Your task to perform on an android device: turn smart compose on in the gmail app Image 0: 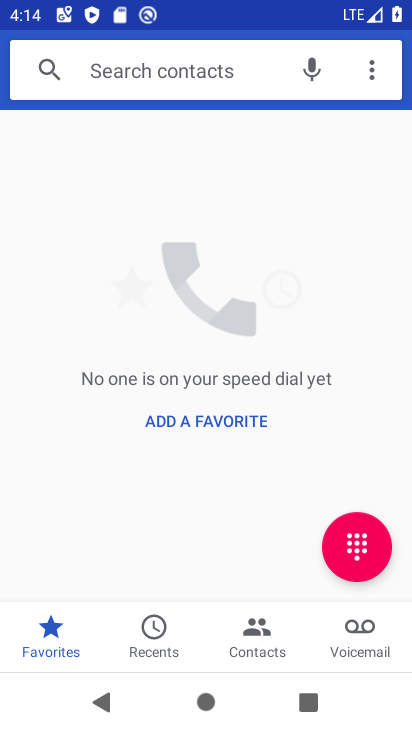
Step 0: press home button
Your task to perform on an android device: turn smart compose on in the gmail app Image 1: 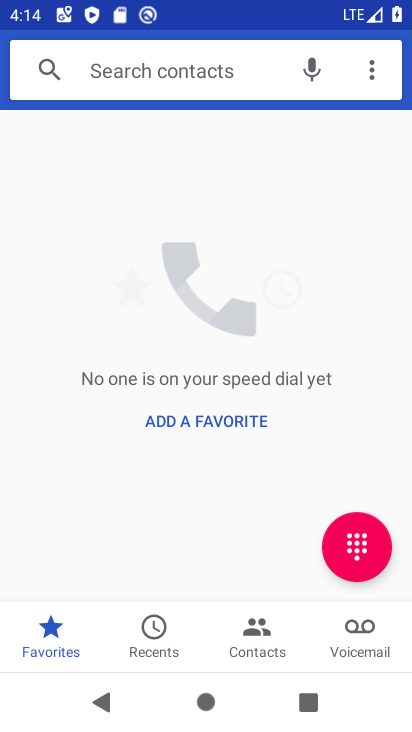
Step 1: press home button
Your task to perform on an android device: turn smart compose on in the gmail app Image 2: 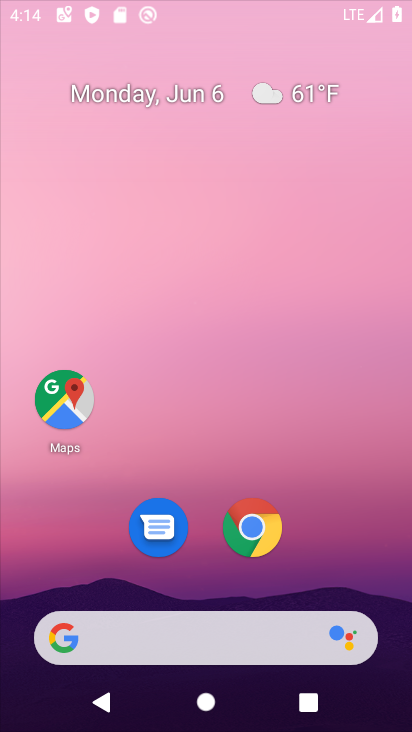
Step 2: press home button
Your task to perform on an android device: turn smart compose on in the gmail app Image 3: 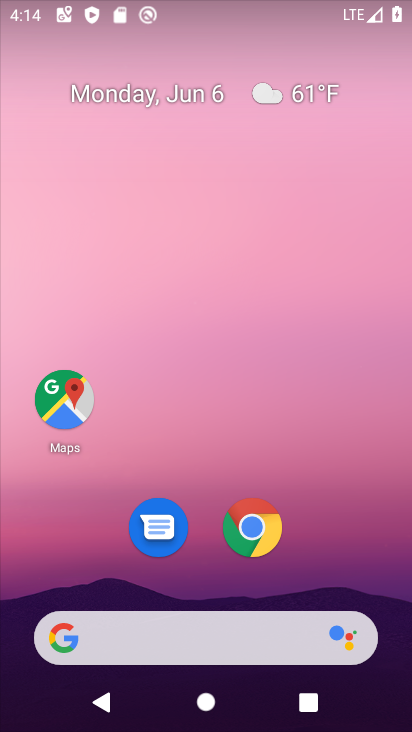
Step 3: drag from (328, 546) to (339, 151)
Your task to perform on an android device: turn smart compose on in the gmail app Image 4: 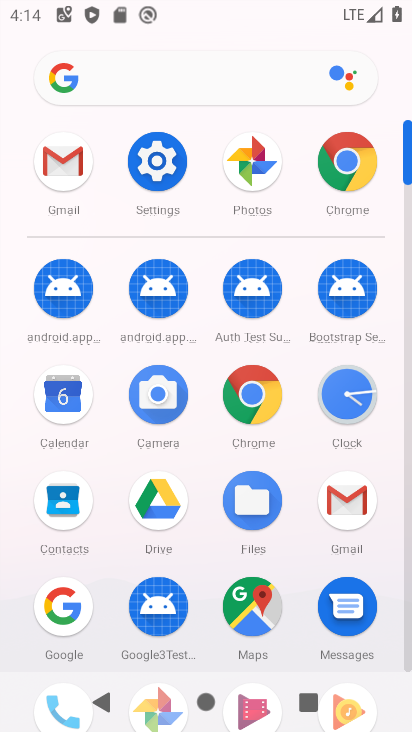
Step 4: click (61, 171)
Your task to perform on an android device: turn smart compose on in the gmail app Image 5: 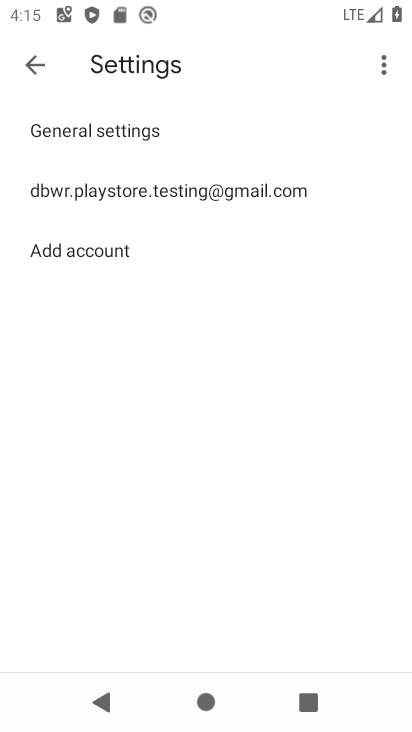
Step 5: click (27, 55)
Your task to perform on an android device: turn smart compose on in the gmail app Image 6: 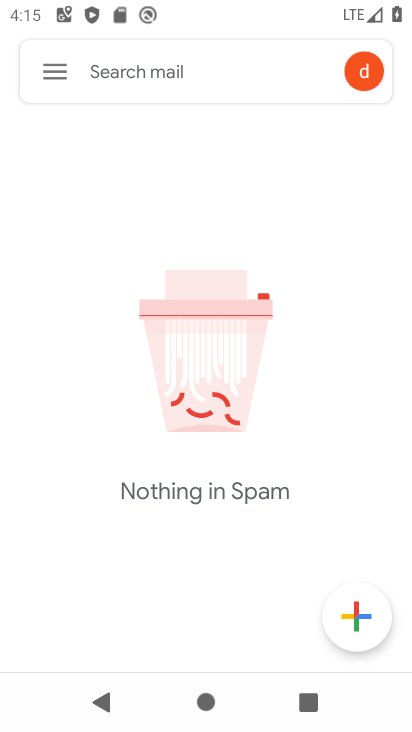
Step 6: click (47, 69)
Your task to perform on an android device: turn smart compose on in the gmail app Image 7: 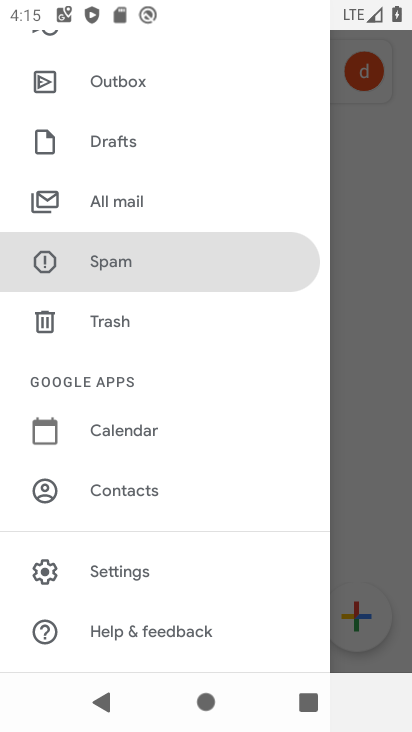
Step 7: click (134, 563)
Your task to perform on an android device: turn smart compose on in the gmail app Image 8: 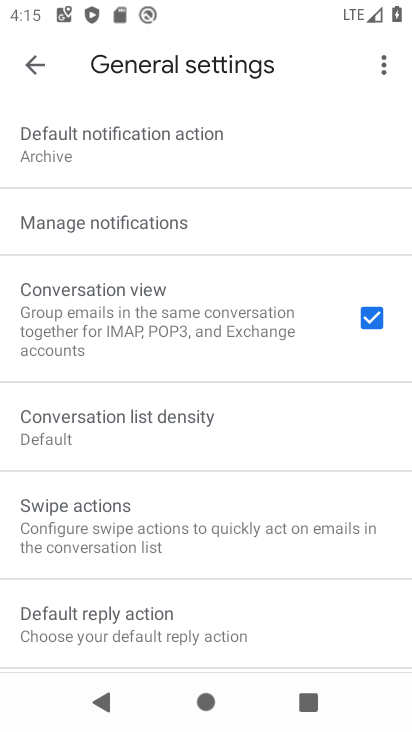
Step 8: drag from (159, 564) to (142, 48)
Your task to perform on an android device: turn smart compose on in the gmail app Image 9: 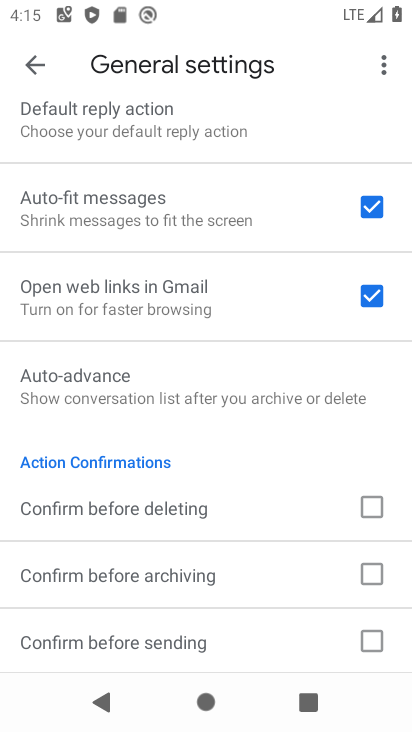
Step 9: drag from (234, 94) to (142, 705)
Your task to perform on an android device: turn smart compose on in the gmail app Image 10: 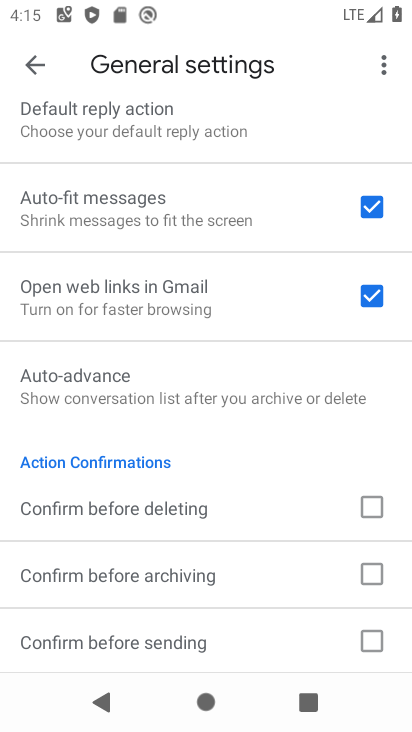
Step 10: drag from (261, 200) to (167, 617)
Your task to perform on an android device: turn smart compose on in the gmail app Image 11: 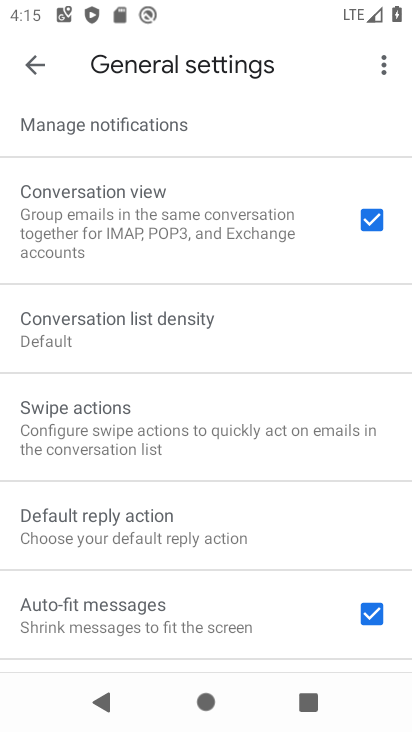
Step 11: drag from (242, 129) to (126, 597)
Your task to perform on an android device: turn smart compose on in the gmail app Image 12: 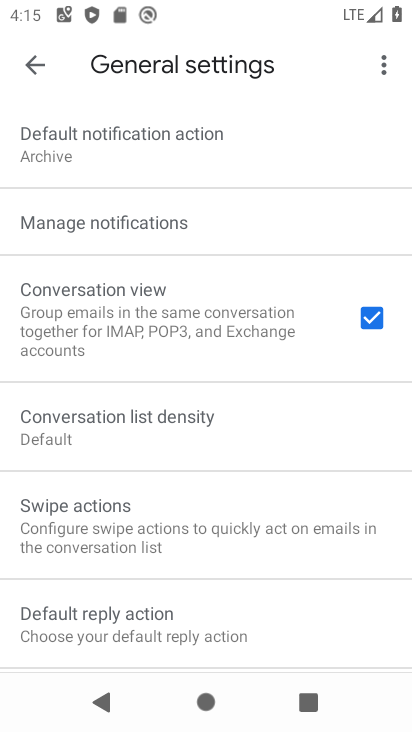
Step 12: drag from (217, 154) to (141, 611)
Your task to perform on an android device: turn smart compose on in the gmail app Image 13: 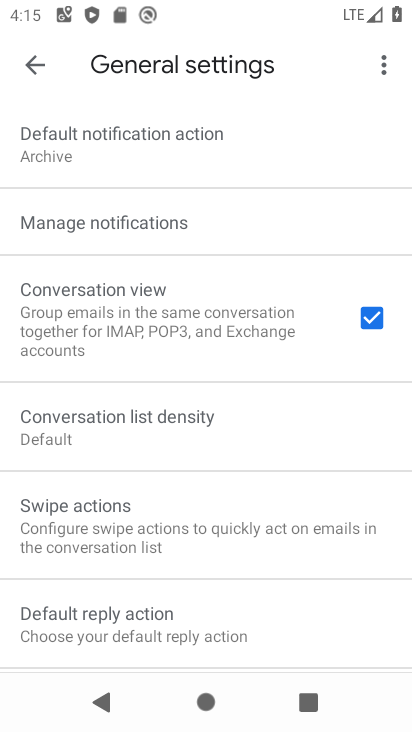
Step 13: drag from (250, 585) to (230, 191)
Your task to perform on an android device: turn smart compose on in the gmail app Image 14: 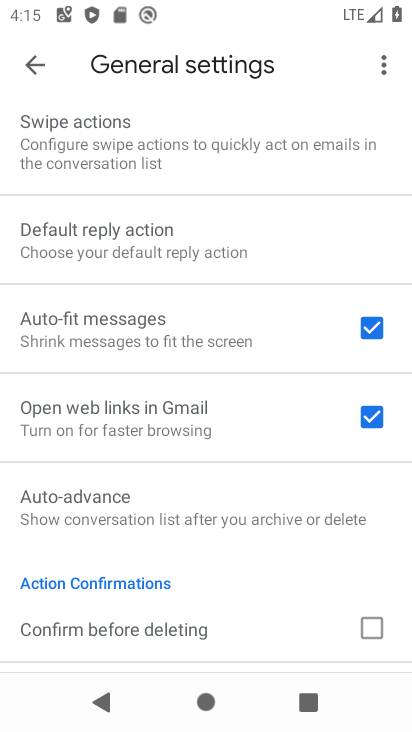
Step 14: drag from (224, 564) to (223, 147)
Your task to perform on an android device: turn smart compose on in the gmail app Image 15: 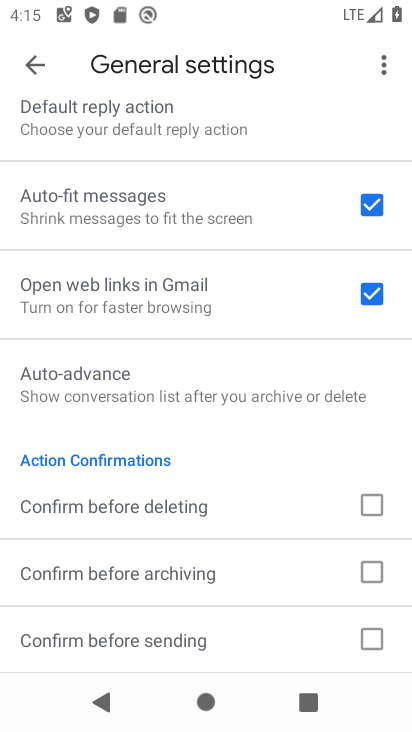
Step 15: click (384, 66)
Your task to perform on an android device: turn smart compose on in the gmail app Image 16: 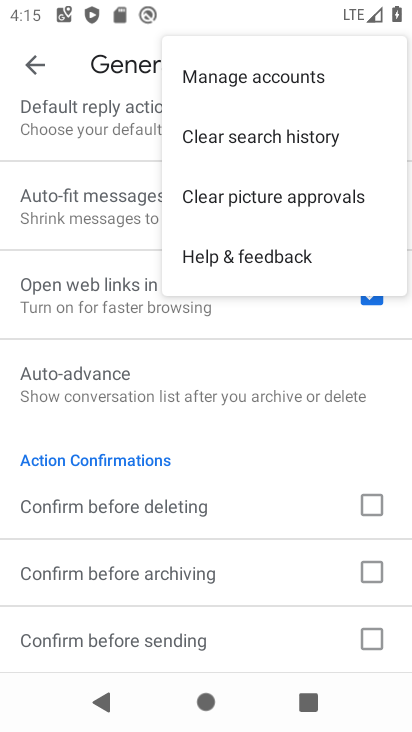
Step 16: click (28, 65)
Your task to perform on an android device: turn smart compose on in the gmail app Image 17: 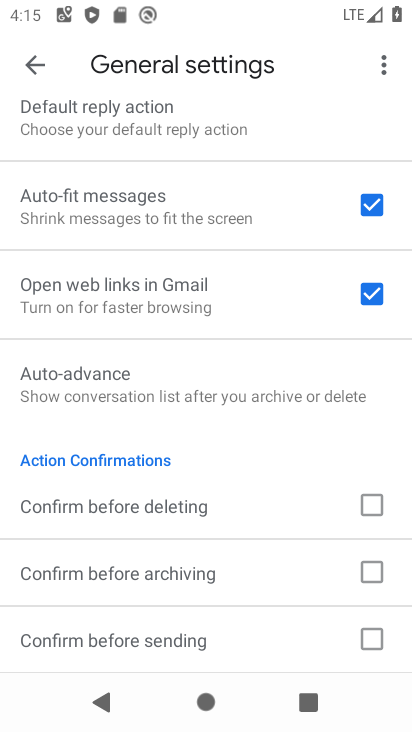
Step 17: click (28, 65)
Your task to perform on an android device: turn smart compose on in the gmail app Image 18: 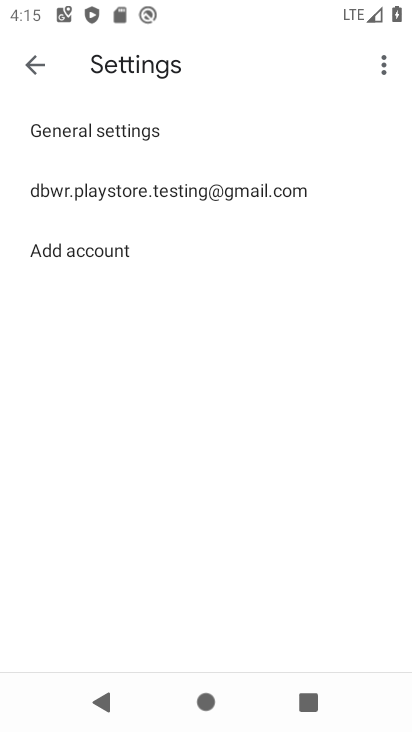
Step 18: task complete